Your task to perform on an android device: see tabs open on other devices in the chrome app Image 0: 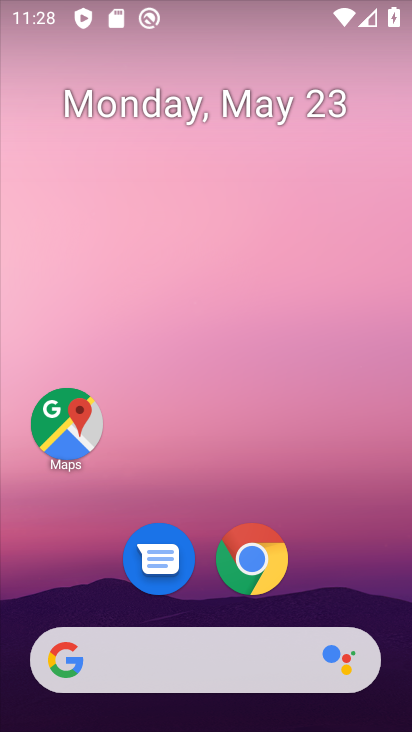
Step 0: click (253, 569)
Your task to perform on an android device: see tabs open on other devices in the chrome app Image 1: 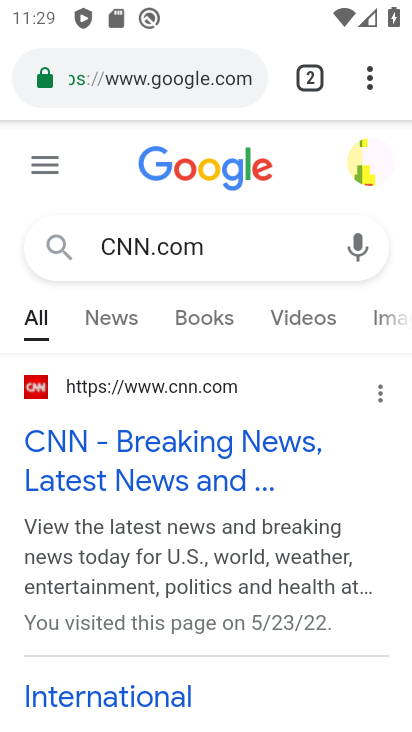
Step 1: click (367, 83)
Your task to perform on an android device: see tabs open on other devices in the chrome app Image 2: 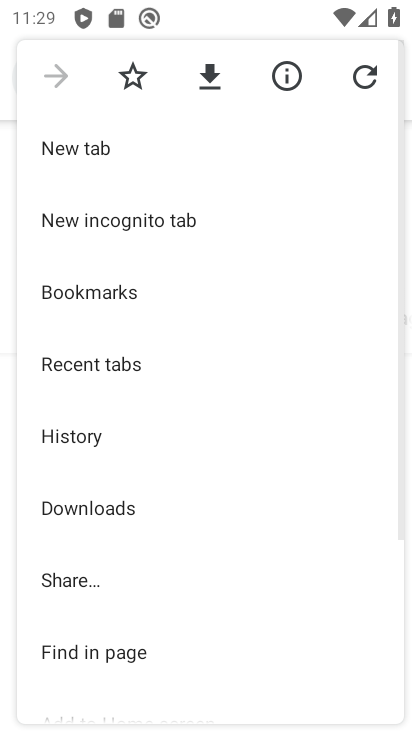
Step 2: click (70, 361)
Your task to perform on an android device: see tabs open on other devices in the chrome app Image 3: 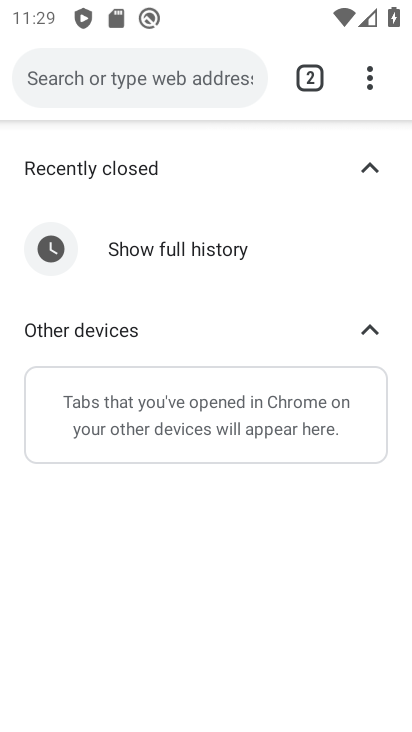
Step 3: task complete